Your task to perform on an android device: change notifications settings Image 0: 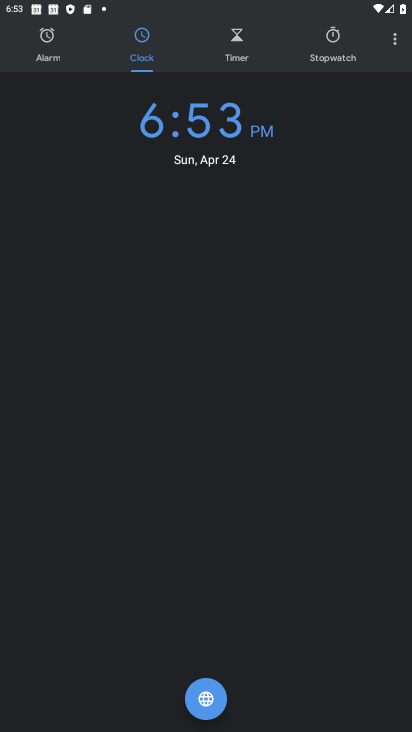
Step 0: press home button
Your task to perform on an android device: change notifications settings Image 1: 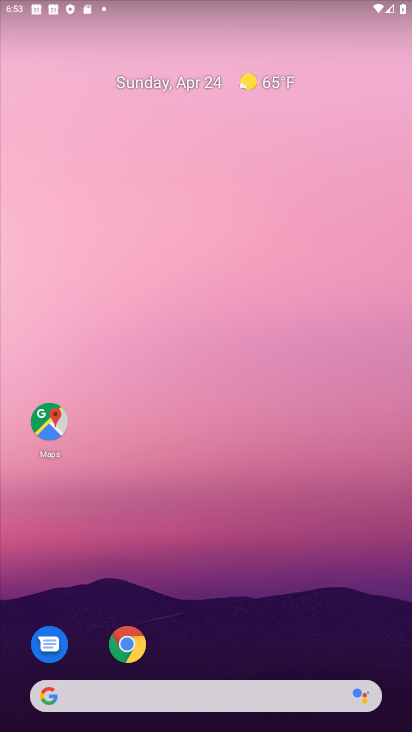
Step 1: drag from (199, 658) to (242, 118)
Your task to perform on an android device: change notifications settings Image 2: 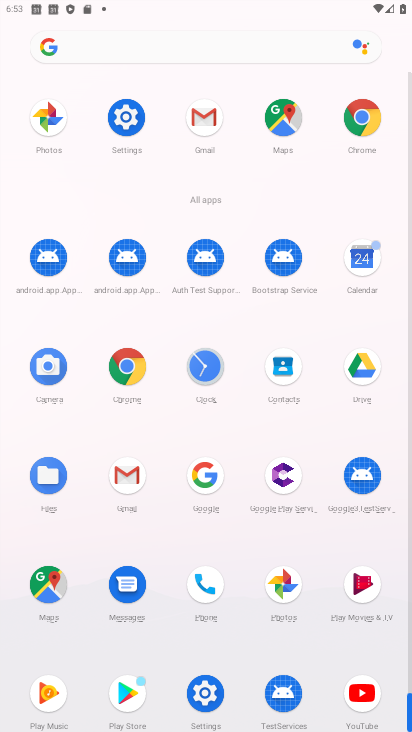
Step 2: click (125, 113)
Your task to perform on an android device: change notifications settings Image 3: 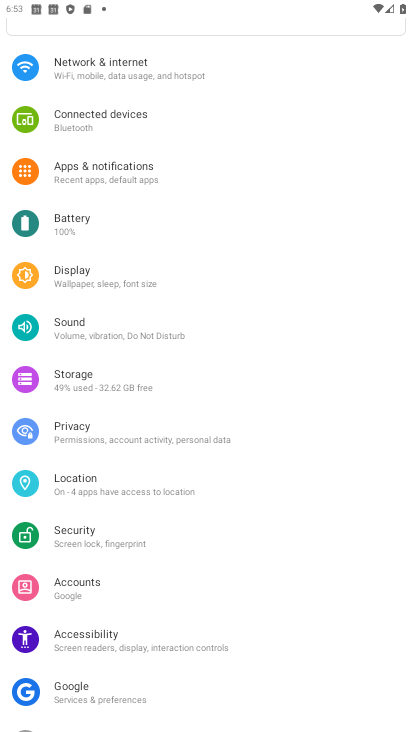
Step 3: click (117, 169)
Your task to perform on an android device: change notifications settings Image 4: 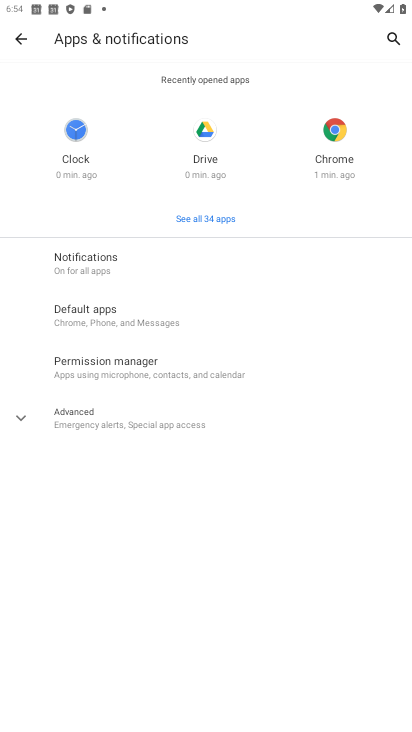
Step 4: click (121, 261)
Your task to perform on an android device: change notifications settings Image 5: 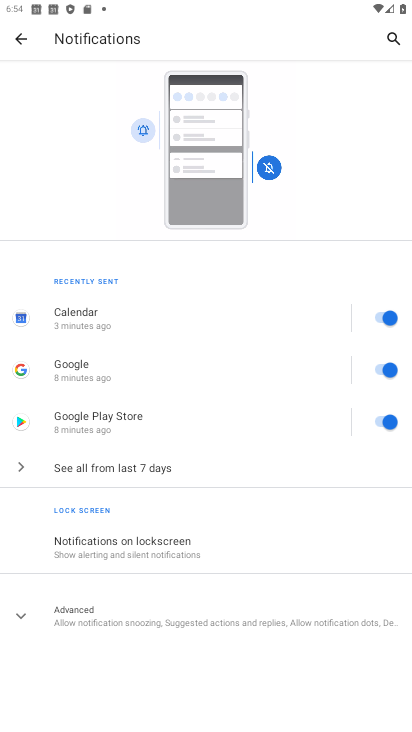
Step 5: click (376, 315)
Your task to perform on an android device: change notifications settings Image 6: 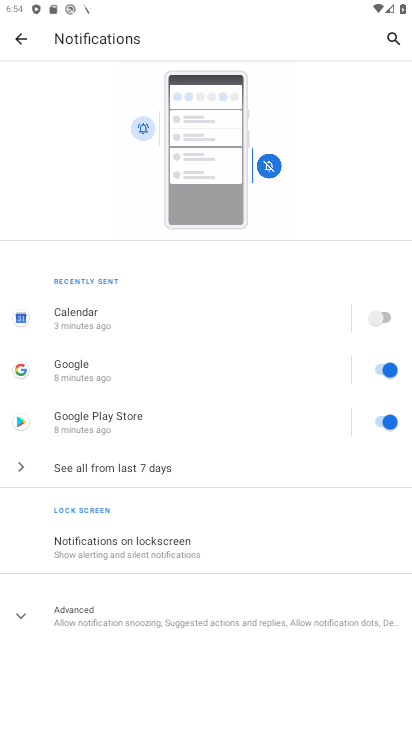
Step 6: click (380, 363)
Your task to perform on an android device: change notifications settings Image 7: 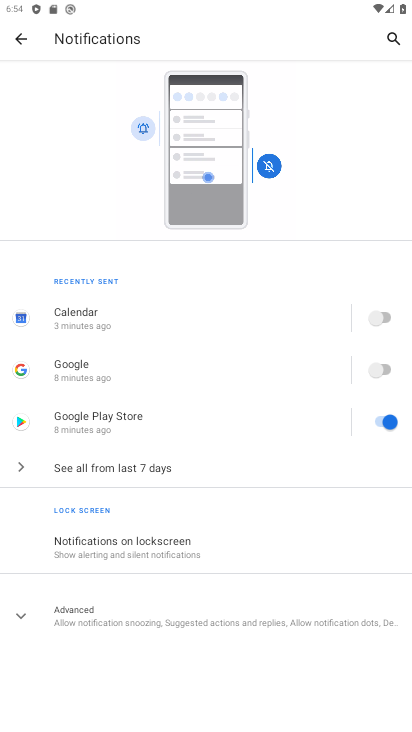
Step 7: click (380, 418)
Your task to perform on an android device: change notifications settings Image 8: 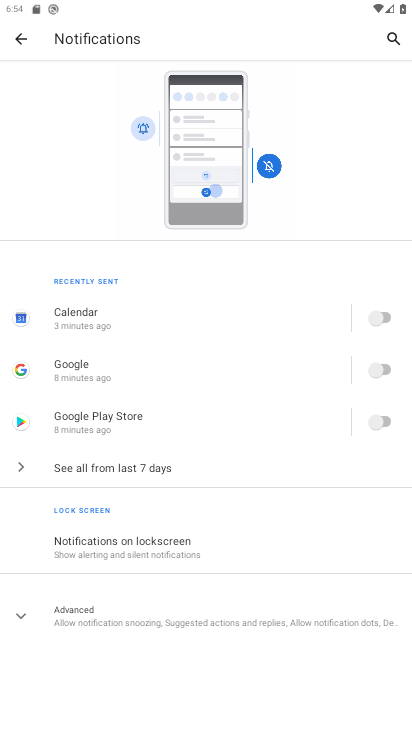
Step 8: click (200, 543)
Your task to perform on an android device: change notifications settings Image 9: 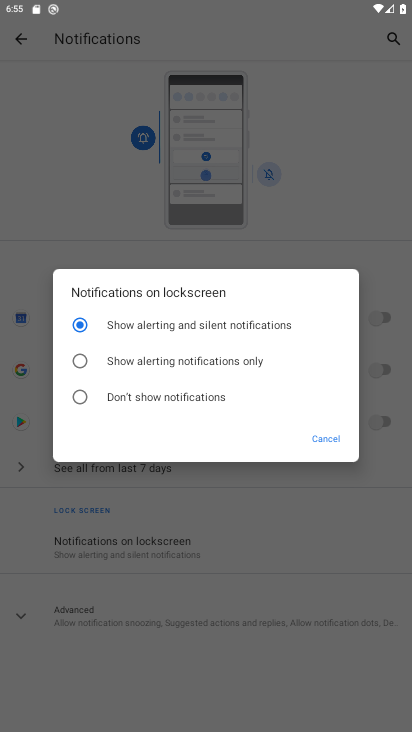
Step 9: click (77, 360)
Your task to perform on an android device: change notifications settings Image 10: 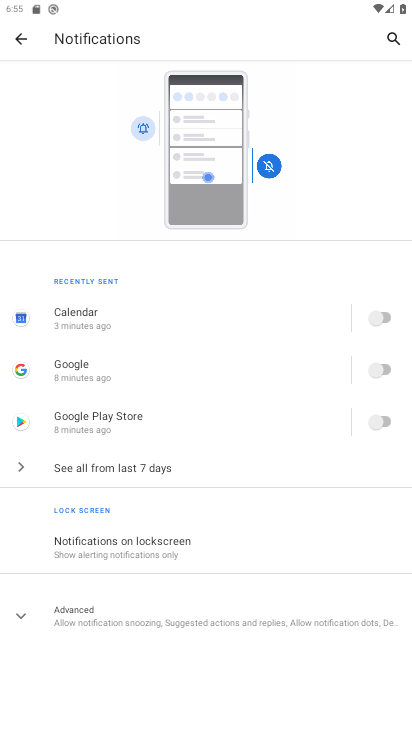
Step 10: task complete